Your task to perform on an android device: turn on javascript in the chrome app Image 0: 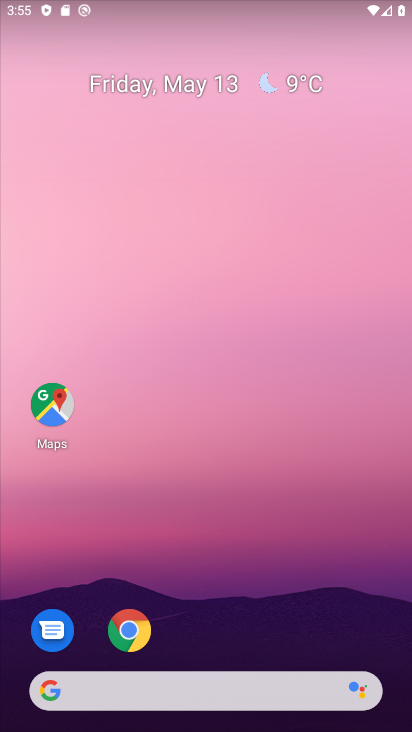
Step 0: drag from (262, 548) to (226, 75)
Your task to perform on an android device: turn on javascript in the chrome app Image 1: 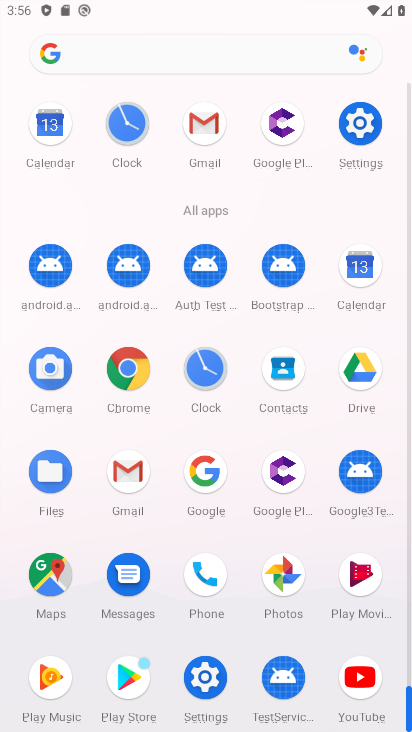
Step 1: click (126, 365)
Your task to perform on an android device: turn on javascript in the chrome app Image 2: 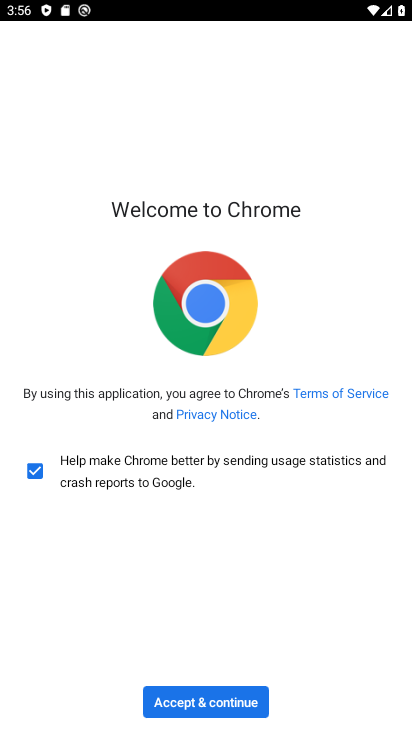
Step 2: click (208, 693)
Your task to perform on an android device: turn on javascript in the chrome app Image 3: 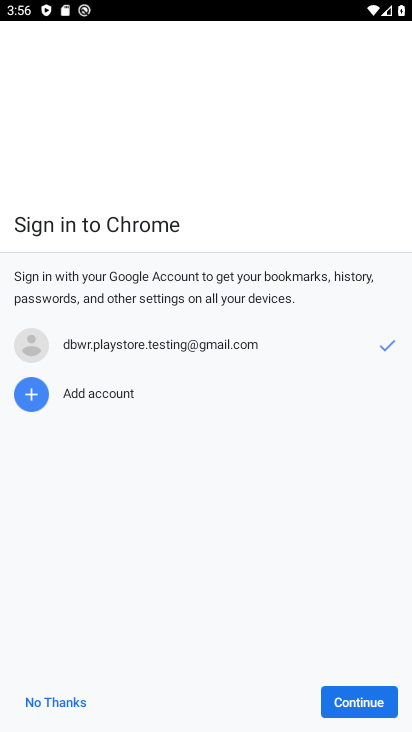
Step 3: click (337, 693)
Your task to perform on an android device: turn on javascript in the chrome app Image 4: 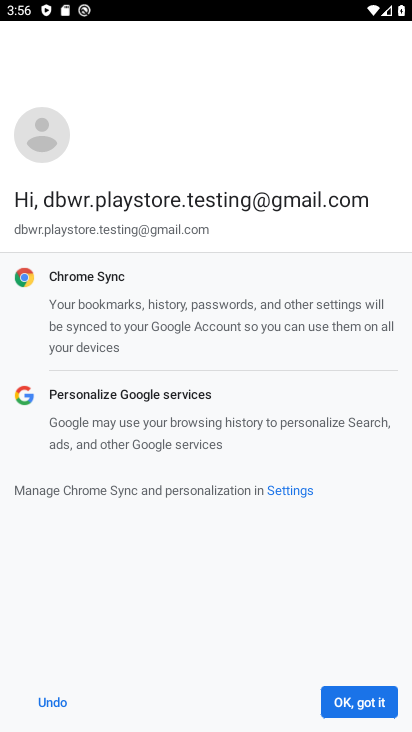
Step 4: click (337, 693)
Your task to perform on an android device: turn on javascript in the chrome app Image 5: 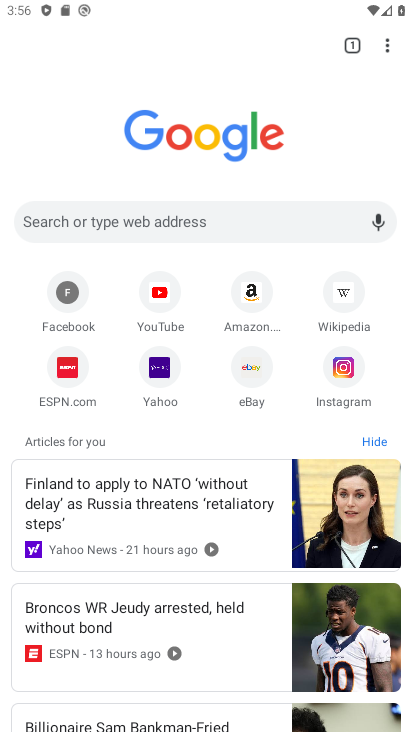
Step 5: drag from (386, 44) to (220, 385)
Your task to perform on an android device: turn on javascript in the chrome app Image 6: 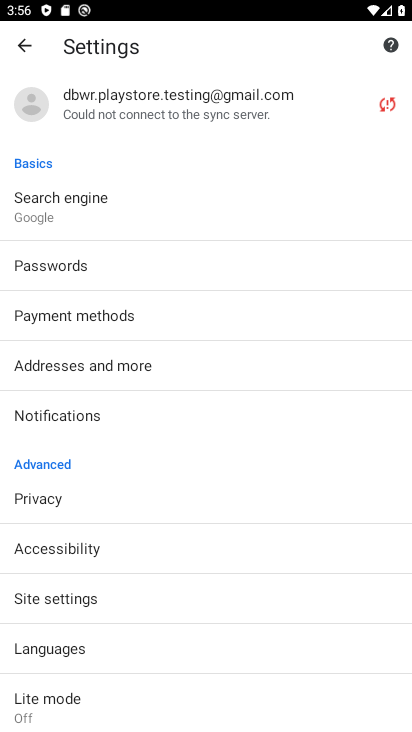
Step 6: drag from (217, 587) to (257, 208)
Your task to perform on an android device: turn on javascript in the chrome app Image 7: 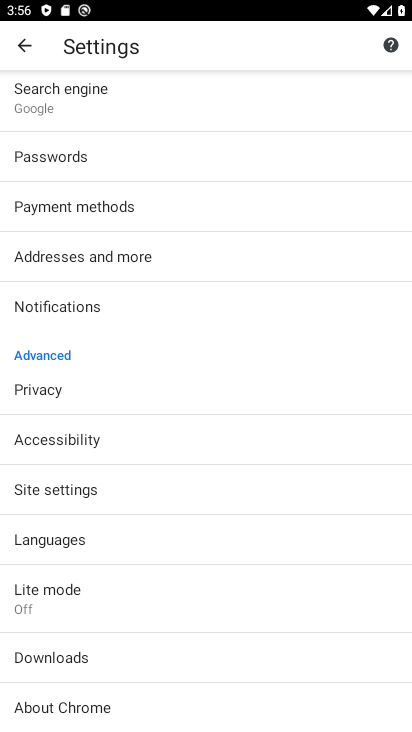
Step 7: click (76, 540)
Your task to perform on an android device: turn on javascript in the chrome app Image 8: 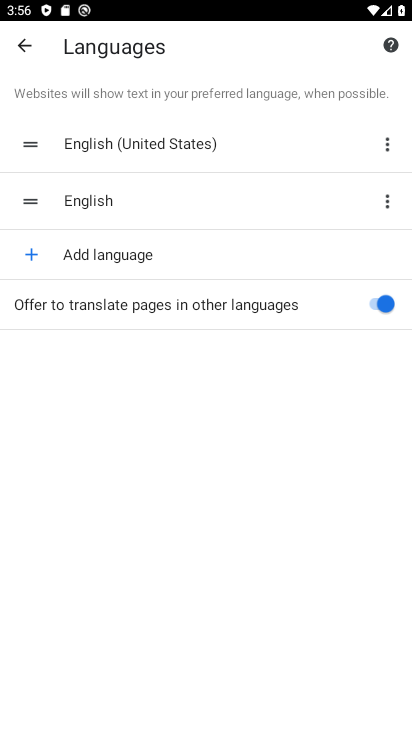
Step 8: task complete